Your task to perform on an android device: allow cookies in the chrome app Image 0: 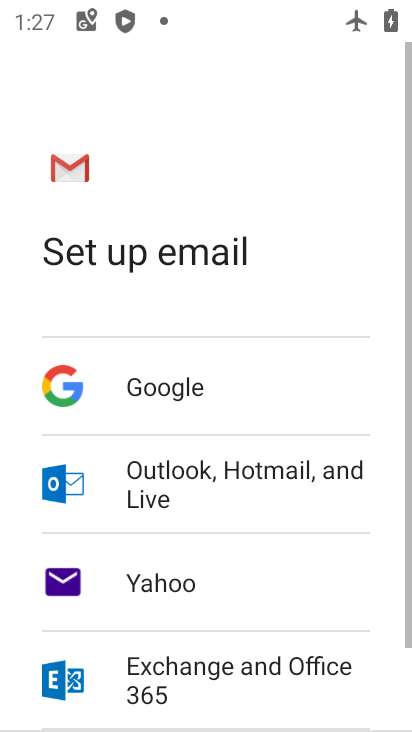
Step 0: press home button
Your task to perform on an android device: allow cookies in the chrome app Image 1: 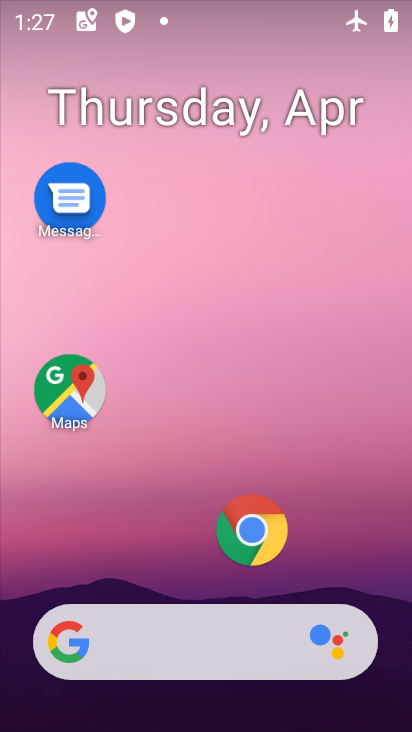
Step 1: drag from (216, 585) to (177, 11)
Your task to perform on an android device: allow cookies in the chrome app Image 2: 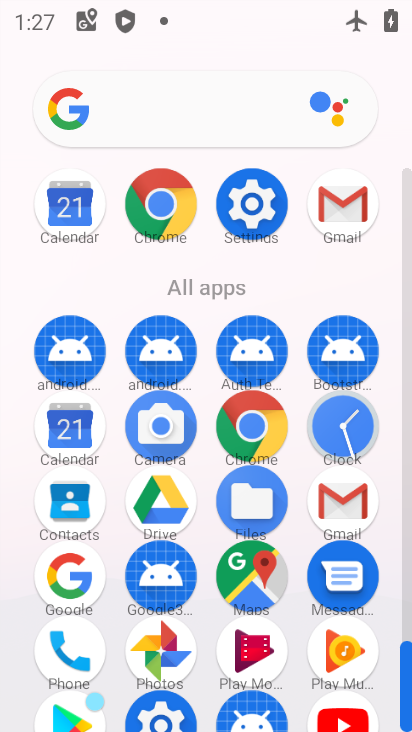
Step 2: click (251, 420)
Your task to perform on an android device: allow cookies in the chrome app Image 3: 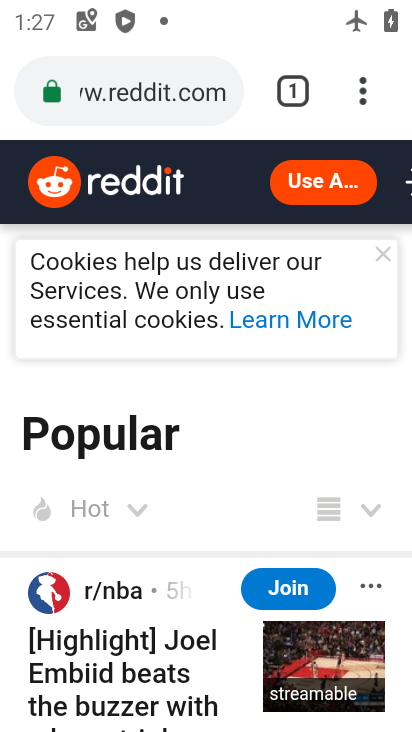
Step 3: click (360, 96)
Your task to perform on an android device: allow cookies in the chrome app Image 4: 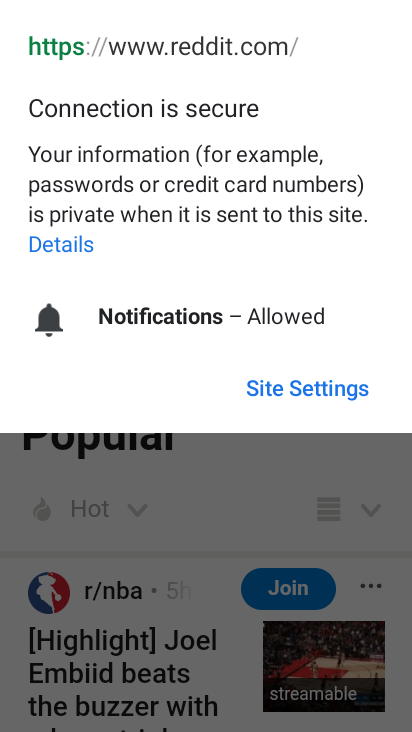
Step 4: click (339, 374)
Your task to perform on an android device: allow cookies in the chrome app Image 5: 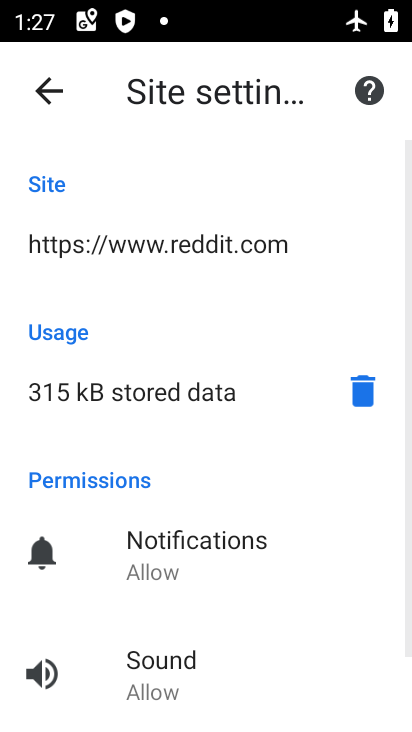
Step 5: drag from (241, 664) to (211, 289)
Your task to perform on an android device: allow cookies in the chrome app Image 6: 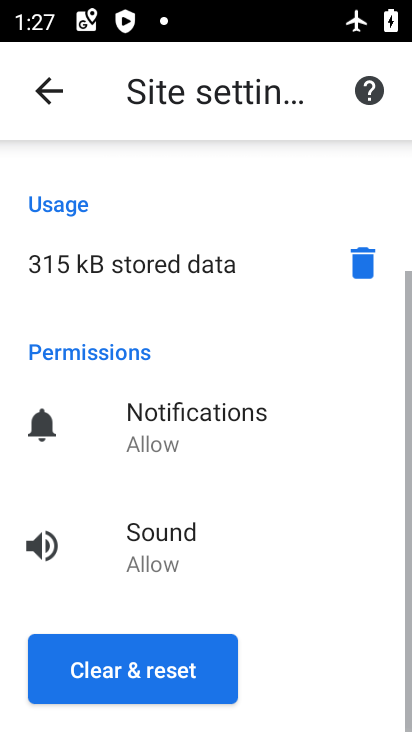
Step 6: click (156, 648)
Your task to perform on an android device: allow cookies in the chrome app Image 7: 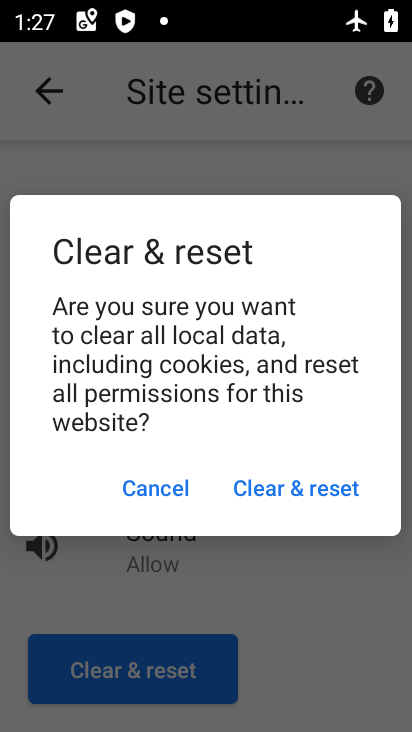
Step 7: click (170, 477)
Your task to perform on an android device: allow cookies in the chrome app Image 8: 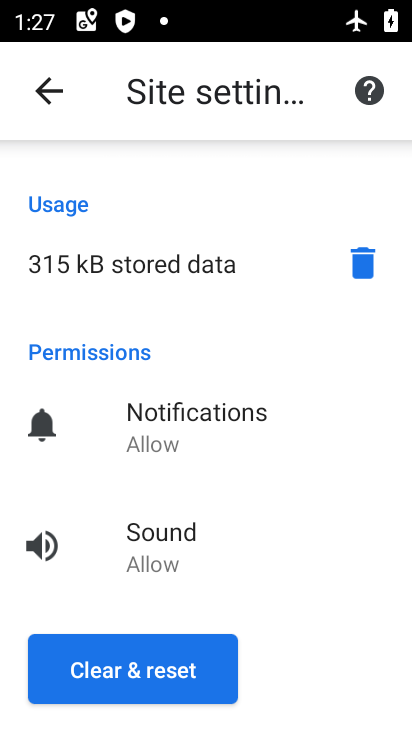
Step 8: click (34, 96)
Your task to perform on an android device: allow cookies in the chrome app Image 9: 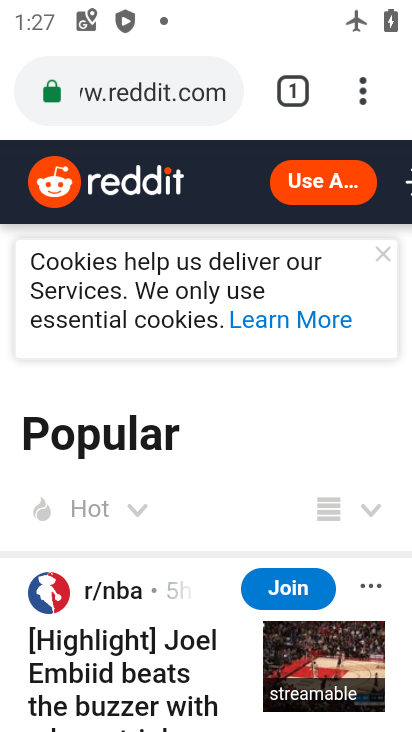
Step 9: drag from (362, 87) to (191, 566)
Your task to perform on an android device: allow cookies in the chrome app Image 10: 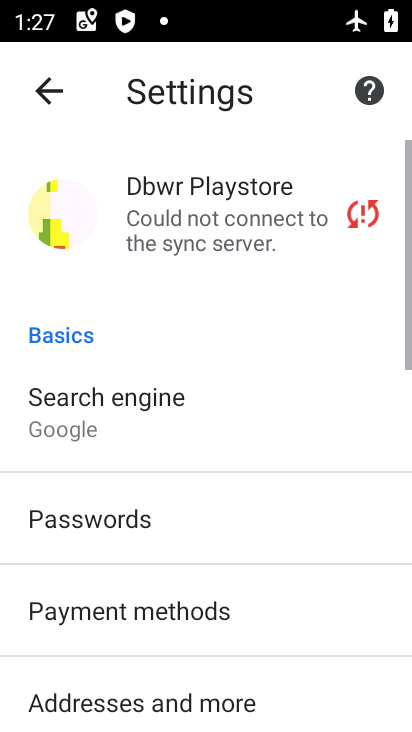
Step 10: drag from (198, 552) to (184, 104)
Your task to perform on an android device: allow cookies in the chrome app Image 11: 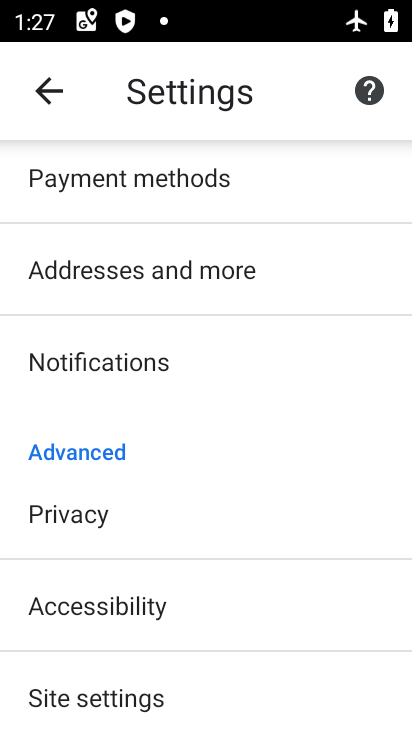
Step 11: drag from (150, 703) to (146, 284)
Your task to perform on an android device: allow cookies in the chrome app Image 12: 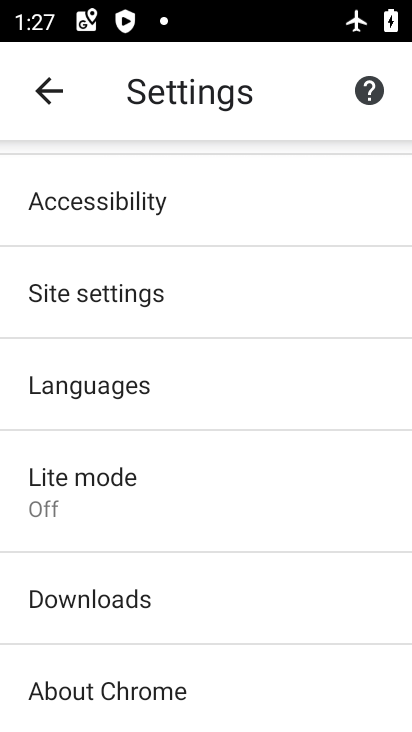
Step 12: click (104, 283)
Your task to perform on an android device: allow cookies in the chrome app Image 13: 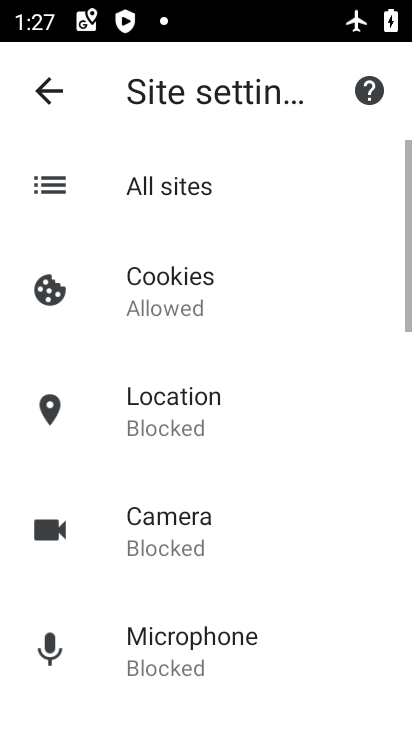
Step 13: click (137, 299)
Your task to perform on an android device: allow cookies in the chrome app Image 14: 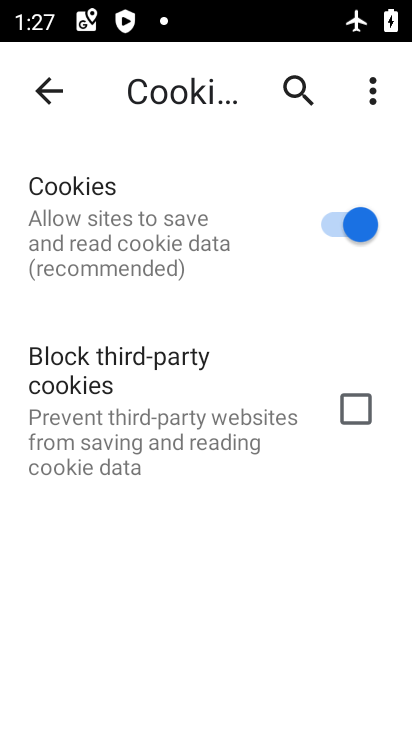
Step 14: task complete